Your task to perform on an android device: Open battery settings Image 0: 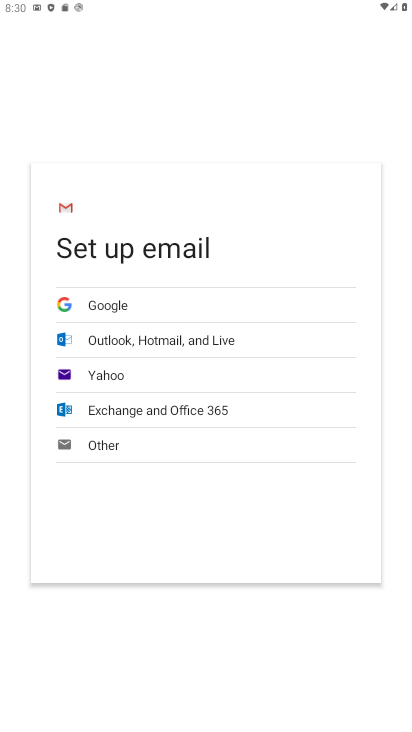
Step 0: press back button
Your task to perform on an android device: Open battery settings Image 1: 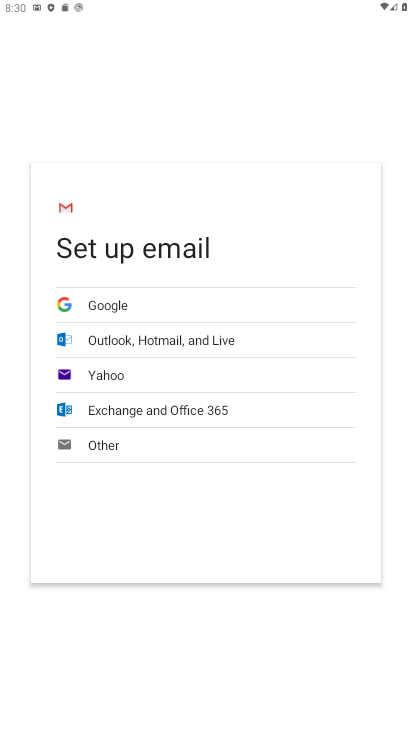
Step 1: press back button
Your task to perform on an android device: Open battery settings Image 2: 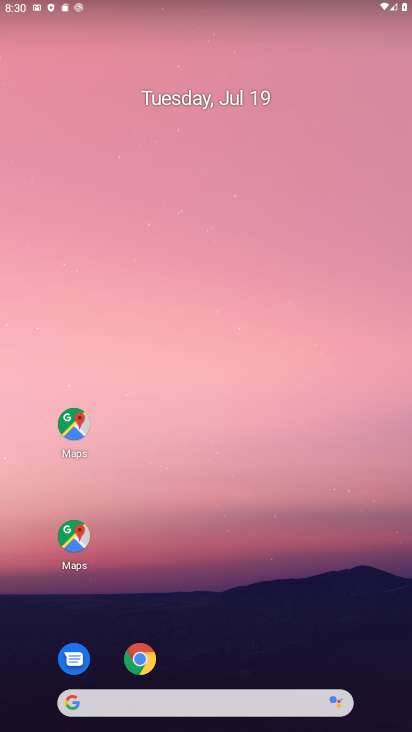
Step 2: drag from (222, 635) to (188, 67)
Your task to perform on an android device: Open battery settings Image 3: 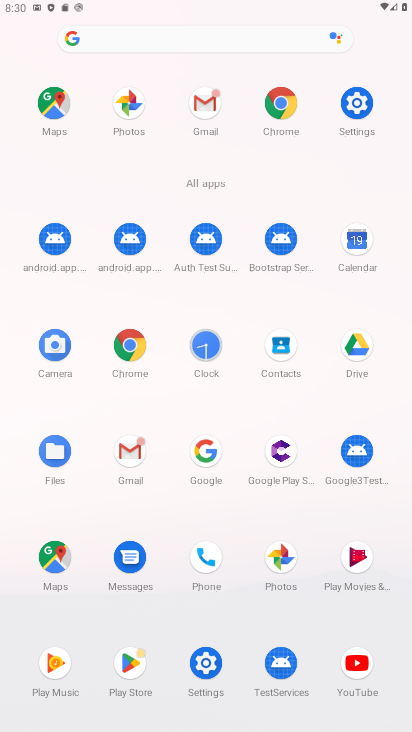
Step 3: click (350, 91)
Your task to perform on an android device: Open battery settings Image 4: 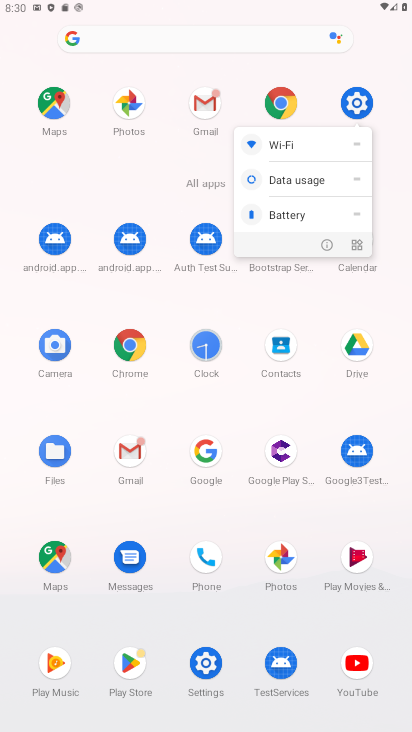
Step 4: click (353, 99)
Your task to perform on an android device: Open battery settings Image 5: 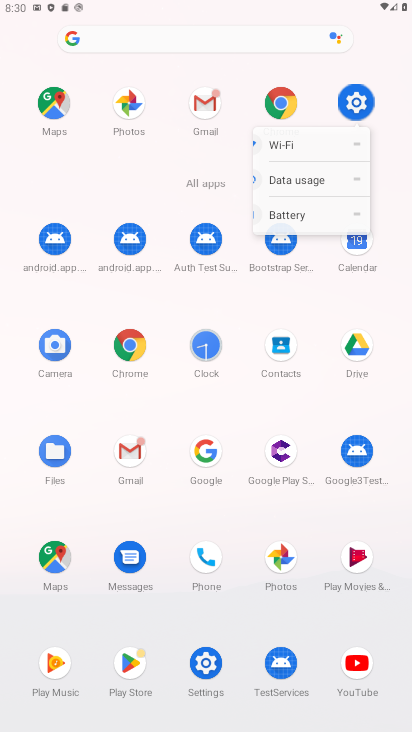
Step 5: click (354, 100)
Your task to perform on an android device: Open battery settings Image 6: 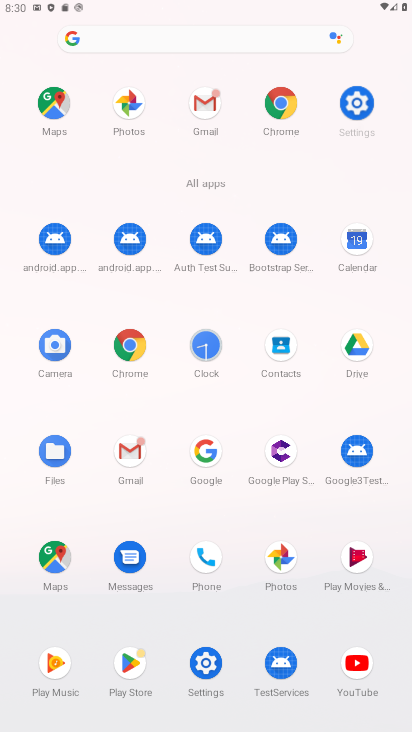
Step 6: click (354, 100)
Your task to perform on an android device: Open battery settings Image 7: 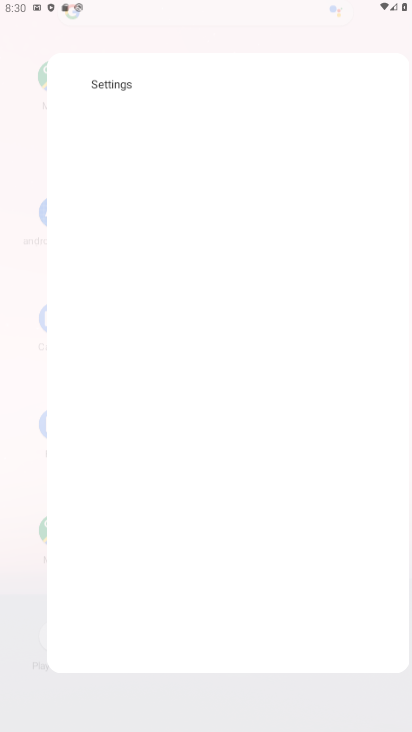
Step 7: click (354, 100)
Your task to perform on an android device: Open battery settings Image 8: 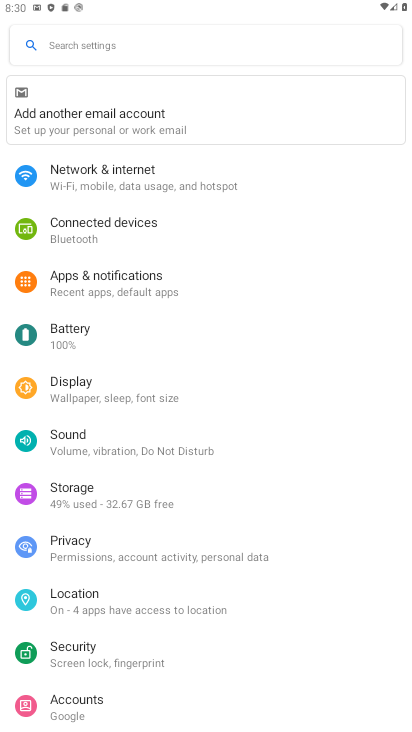
Step 8: click (73, 339)
Your task to perform on an android device: Open battery settings Image 9: 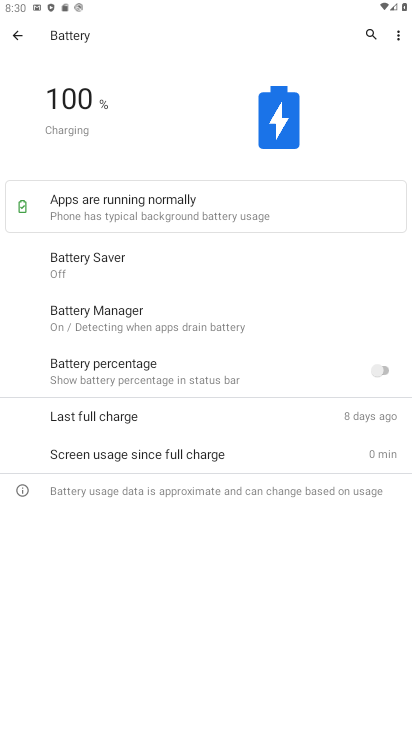
Step 9: task complete